Your task to perform on an android device: read, delete, or share a saved page in the chrome app Image 0: 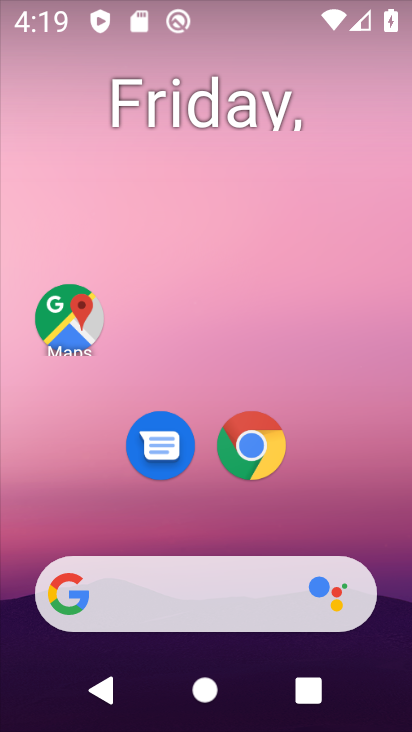
Step 0: press home button
Your task to perform on an android device: read, delete, or share a saved page in the chrome app Image 1: 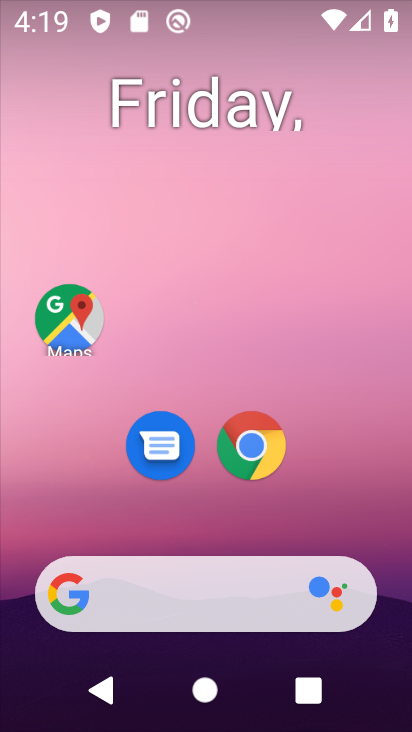
Step 1: click (228, 602)
Your task to perform on an android device: read, delete, or share a saved page in the chrome app Image 2: 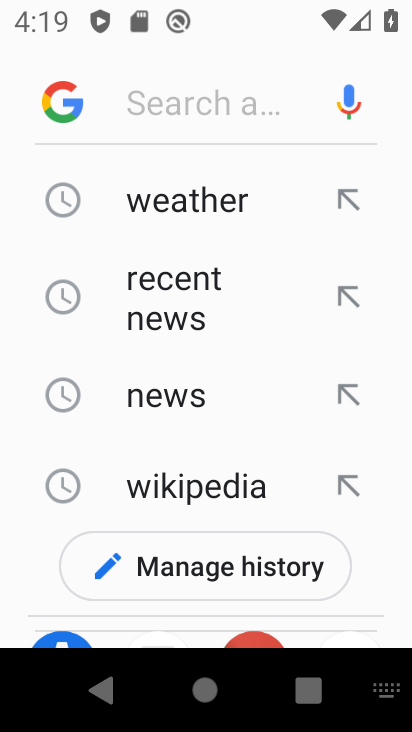
Step 2: click (292, 559)
Your task to perform on an android device: read, delete, or share a saved page in the chrome app Image 3: 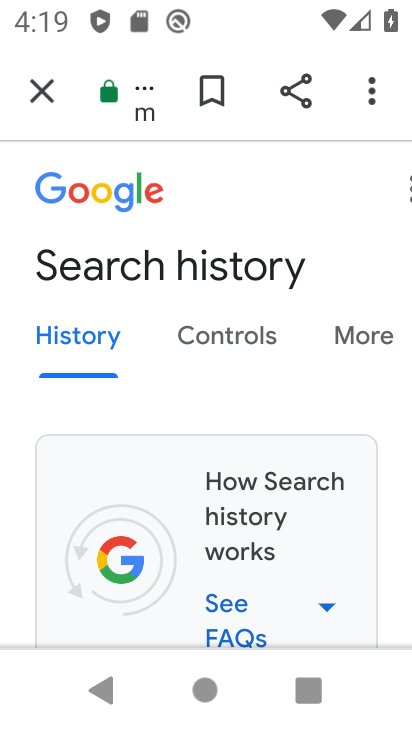
Step 3: press home button
Your task to perform on an android device: read, delete, or share a saved page in the chrome app Image 4: 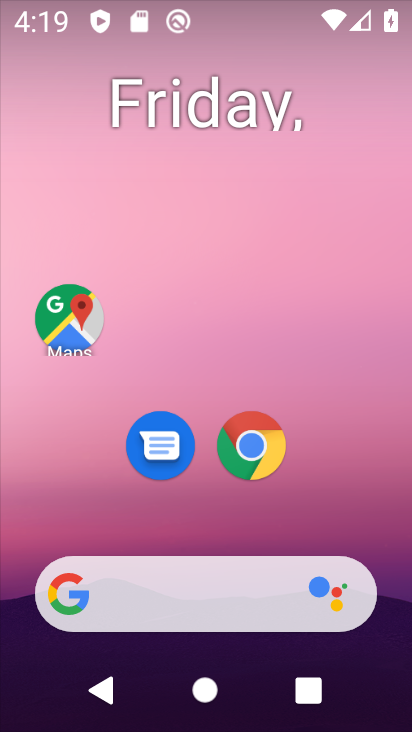
Step 4: click (235, 462)
Your task to perform on an android device: read, delete, or share a saved page in the chrome app Image 5: 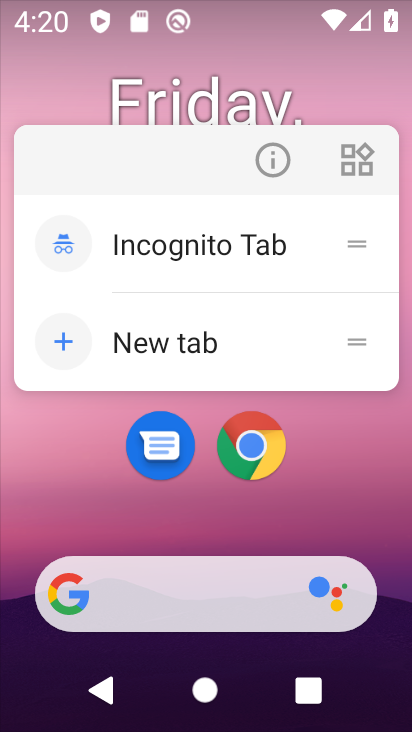
Step 5: click (386, 507)
Your task to perform on an android device: read, delete, or share a saved page in the chrome app Image 6: 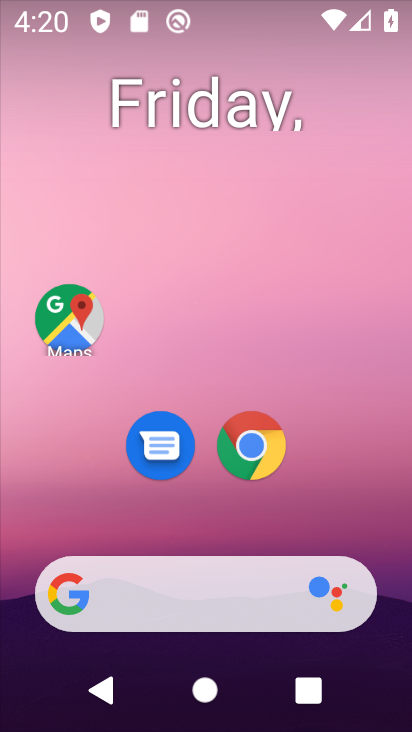
Step 6: drag from (309, 540) to (282, 1)
Your task to perform on an android device: read, delete, or share a saved page in the chrome app Image 7: 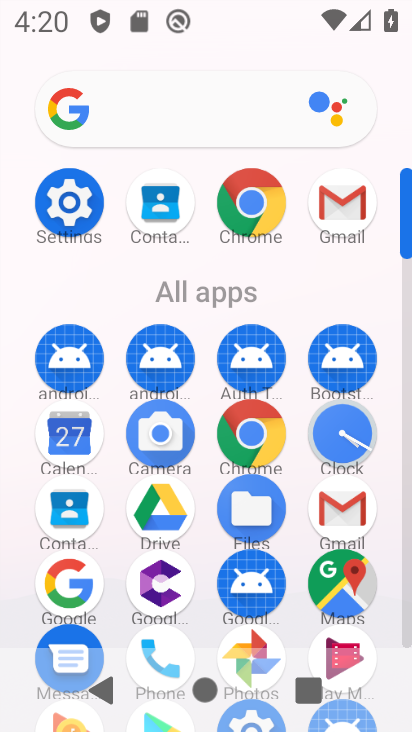
Step 7: click (219, 200)
Your task to perform on an android device: read, delete, or share a saved page in the chrome app Image 8: 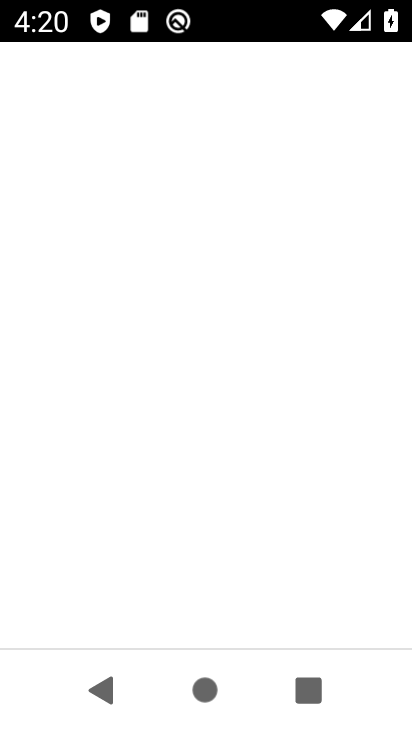
Step 8: click (236, 208)
Your task to perform on an android device: read, delete, or share a saved page in the chrome app Image 9: 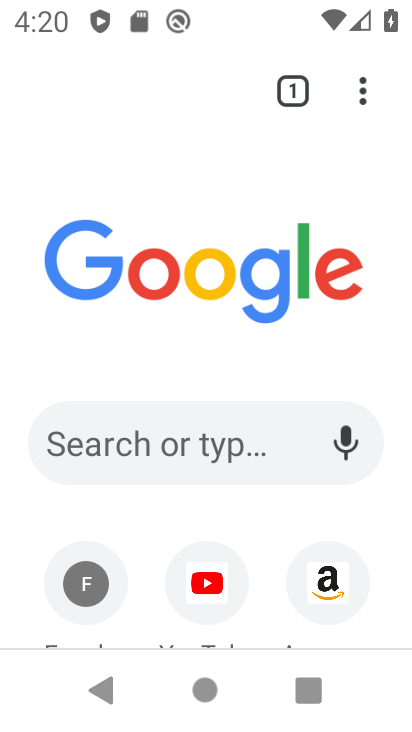
Step 9: drag from (373, 89) to (258, 324)
Your task to perform on an android device: read, delete, or share a saved page in the chrome app Image 10: 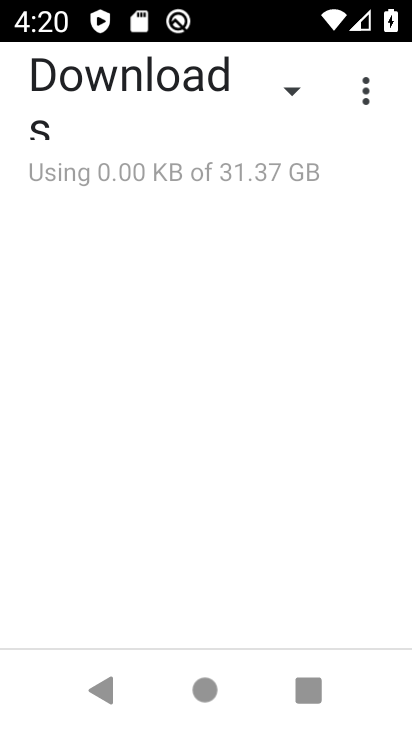
Step 10: drag from (320, 536) to (279, 185)
Your task to perform on an android device: read, delete, or share a saved page in the chrome app Image 11: 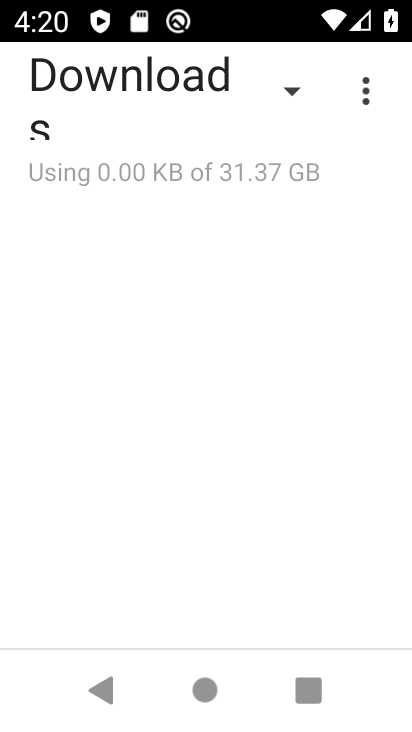
Step 11: click (293, 96)
Your task to perform on an android device: read, delete, or share a saved page in the chrome app Image 12: 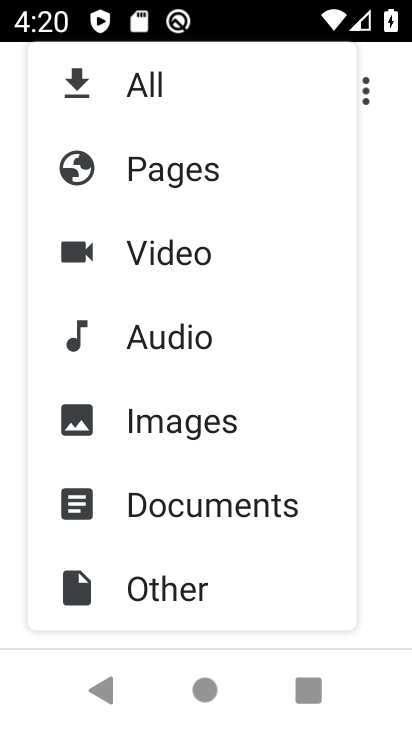
Step 12: click (160, 180)
Your task to perform on an android device: read, delete, or share a saved page in the chrome app Image 13: 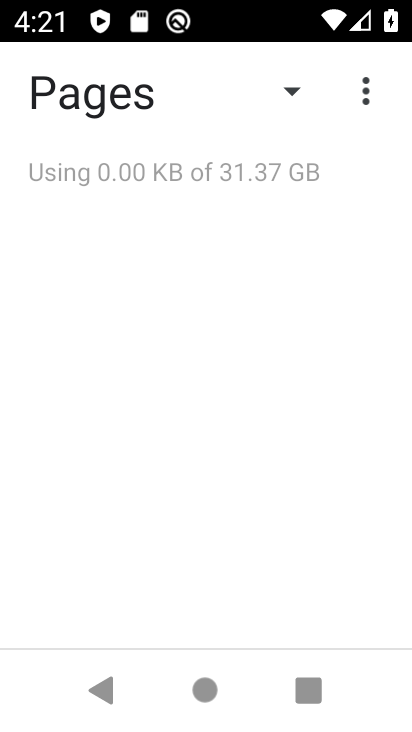
Step 13: task complete